Your task to perform on an android device: Open Google Chrome and click the shortcut for Amazon.com Image 0: 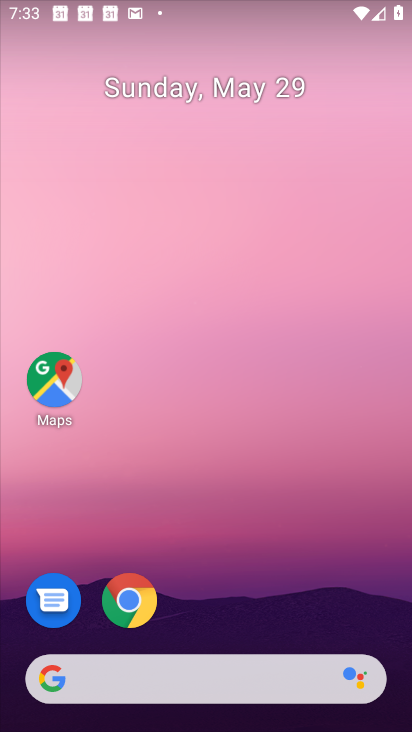
Step 0: drag from (322, 638) to (321, 266)
Your task to perform on an android device: Open Google Chrome and click the shortcut for Amazon.com Image 1: 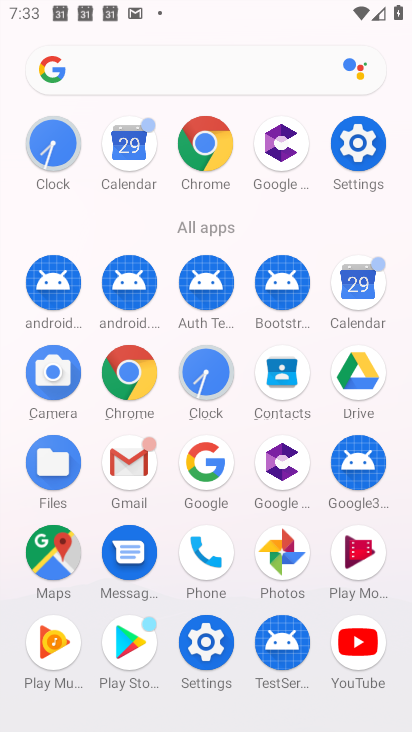
Step 1: click (113, 372)
Your task to perform on an android device: Open Google Chrome and click the shortcut for Amazon.com Image 2: 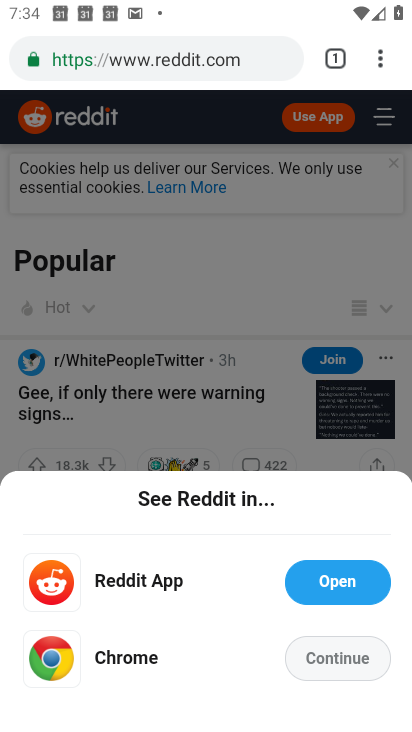
Step 2: click (341, 64)
Your task to perform on an android device: Open Google Chrome and click the shortcut for Amazon.com Image 3: 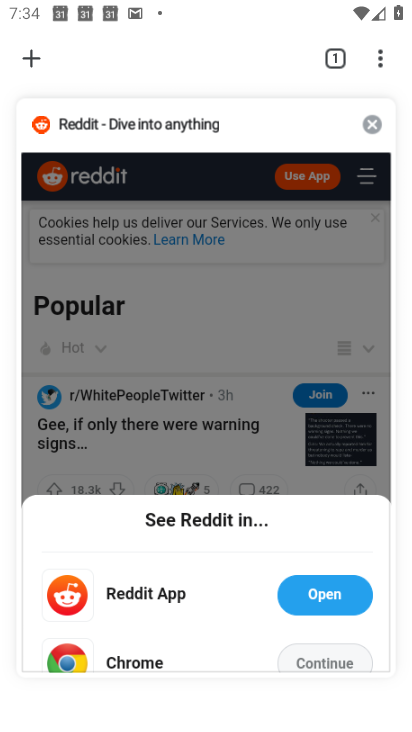
Step 3: click (34, 65)
Your task to perform on an android device: Open Google Chrome and click the shortcut for Amazon.com Image 4: 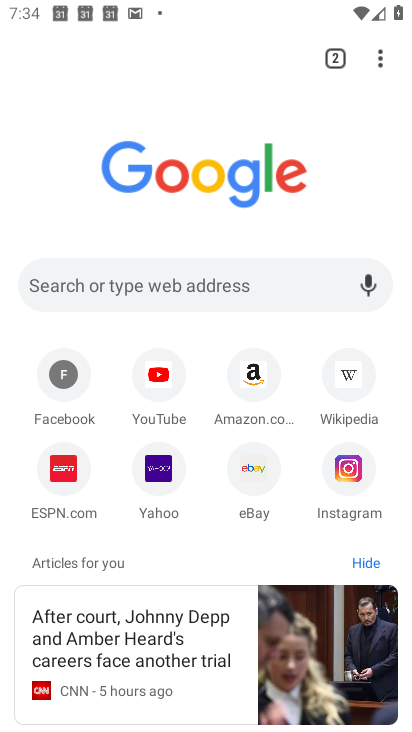
Step 4: click (260, 407)
Your task to perform on an android device: Open Google Chrome and click the shortcut for Amazon.com Image 5: 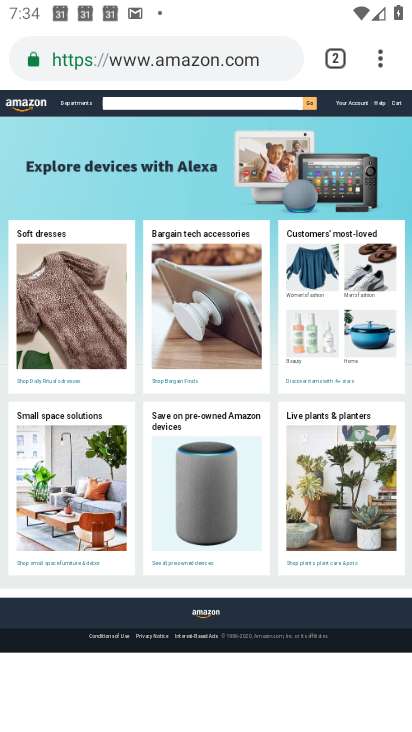
Step 5: task complete